Your task to perform on an android device: Check the news Image 0: 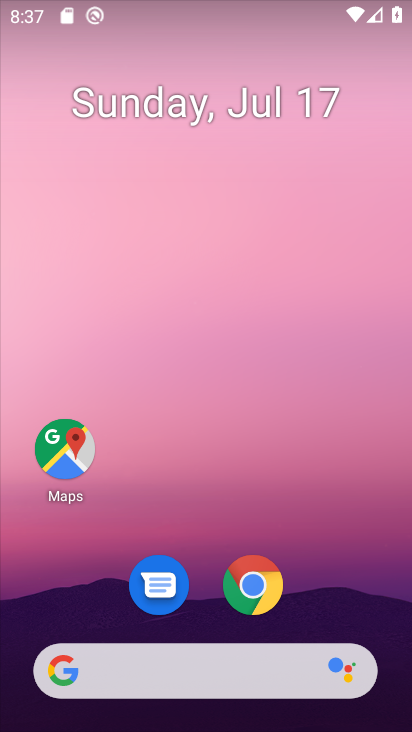
Step 0: click (232, 668)
Your task to perform on an android device: Check the news Image 1: 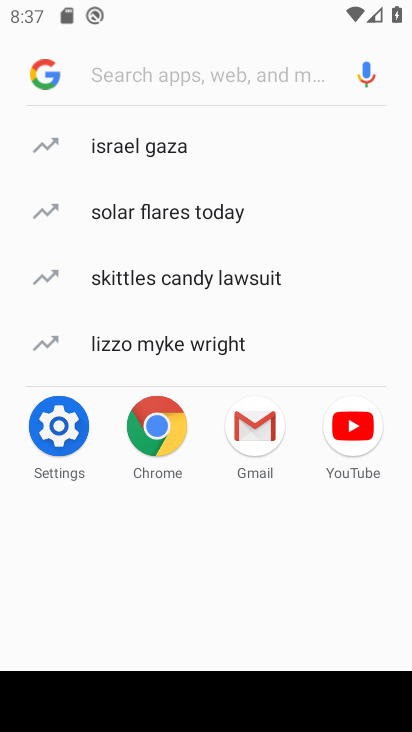
Step 1: type "News"
Your task to perform on an android device: Check the news Image 2: 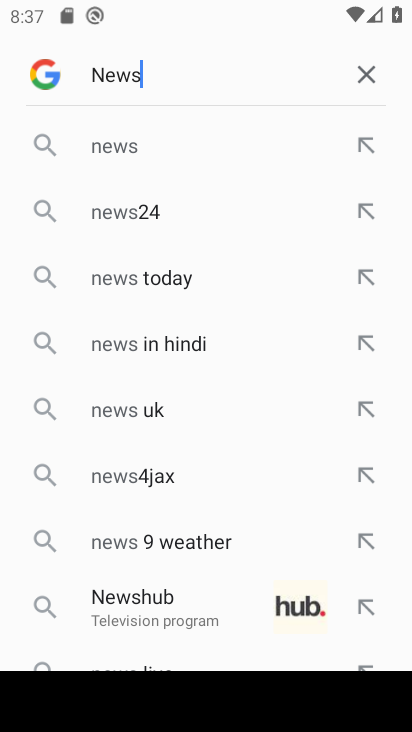
Step 2: click (125, 143)
Your task to perform on an android device: Check the news Image 3: 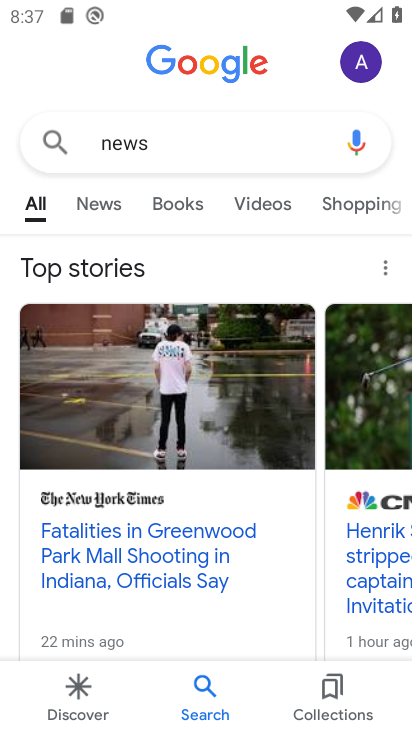
Step 3: task complete